Your task to perform on an android device: Show me popular games on the Play Store Image 0: 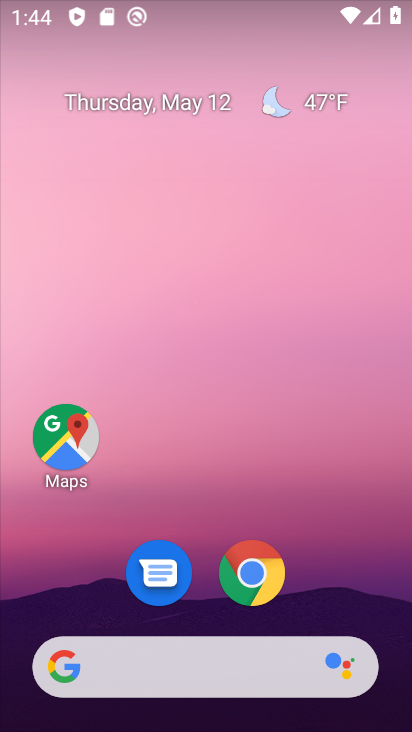
Step 0: drag from (204, 614) to (221, 172)
Your task to perform on an android device: Show me popular games on the Play Store Image 1: 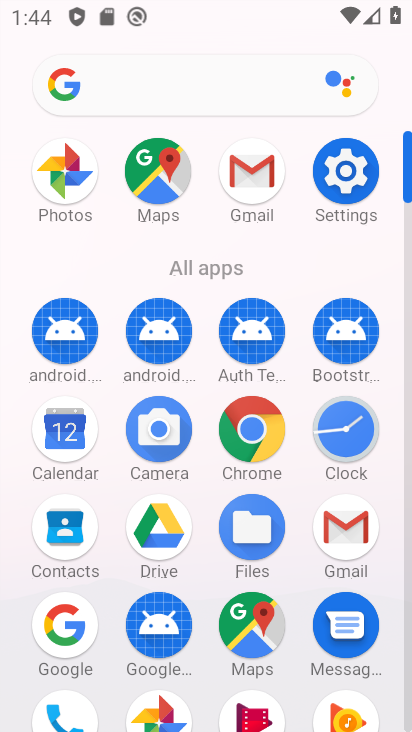
Step 1: drag from (198, 664) to (254, 177)
Your task to perform on an android device: Show me popular games on the Play Store Image 2: 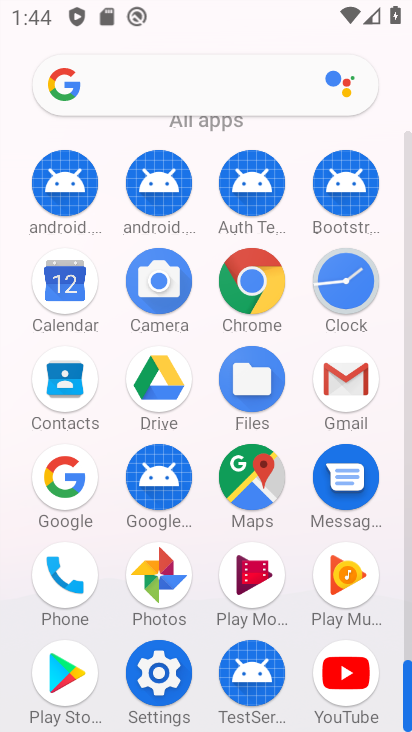
Step 2: click (73, 668)
Your task to perform on an android device: Show me popular games on the Play Store Image 3: 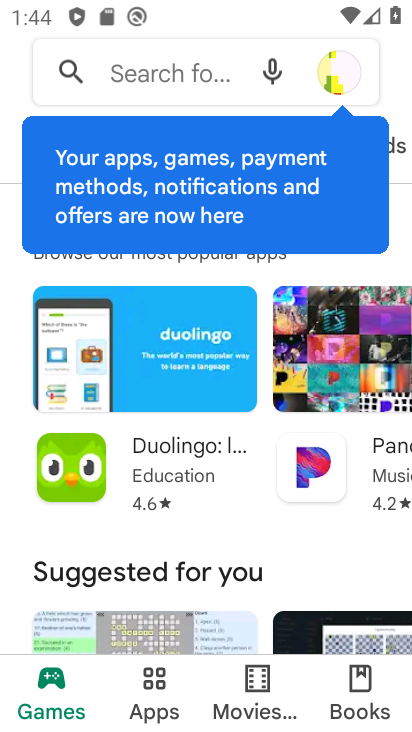
Step 3: click (329, 574)
Your task to perform on an android device: Show me popular games on the Play Store Image 4: 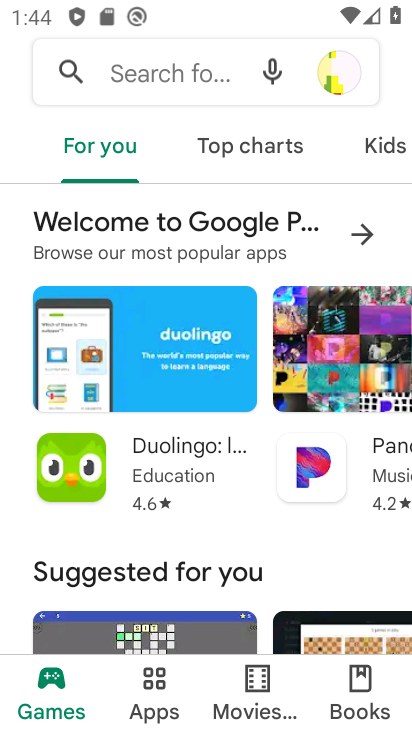
Step 4: click (273, 162)
Your task to perform on an android device: Show me popular games on the Play Store Image 5: 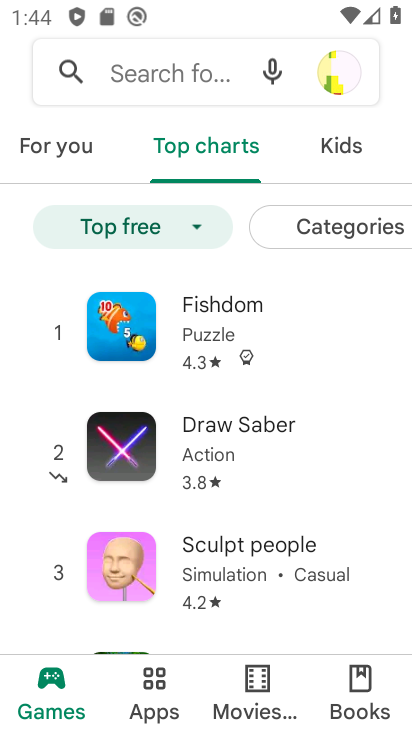
Step 5: task complete